Your task to perform on an android device: add a label to a message in the gmail app Image 0: 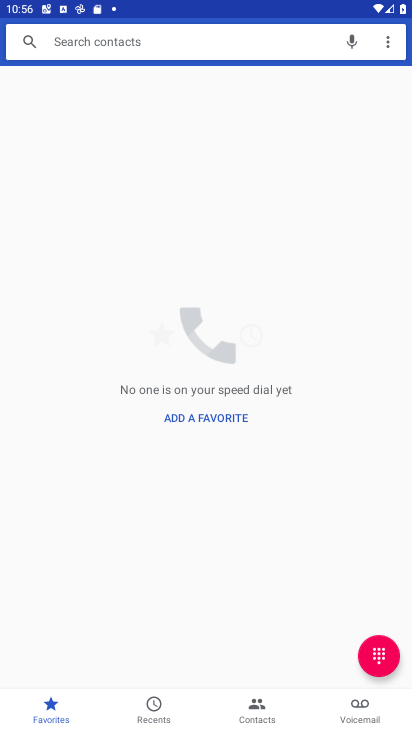
Step 0: press home button
Your task to perform on an android device: add a label to a message in the gmail app Image 1: 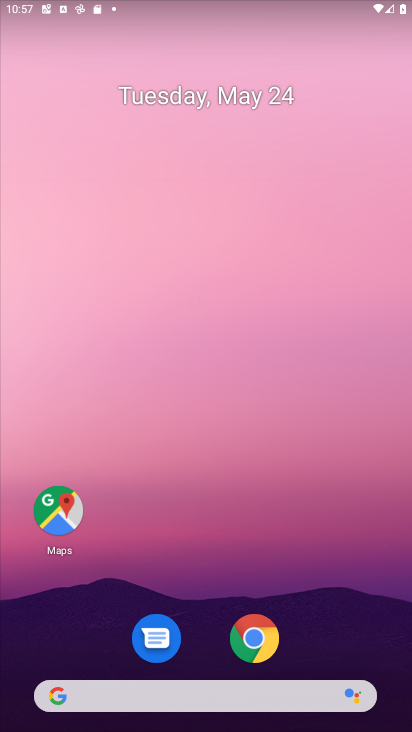
Step 1: drag from (215, 722) to (340, 73)
Your task to perform on an android device: add a label to a message in the gmail app Image 2: 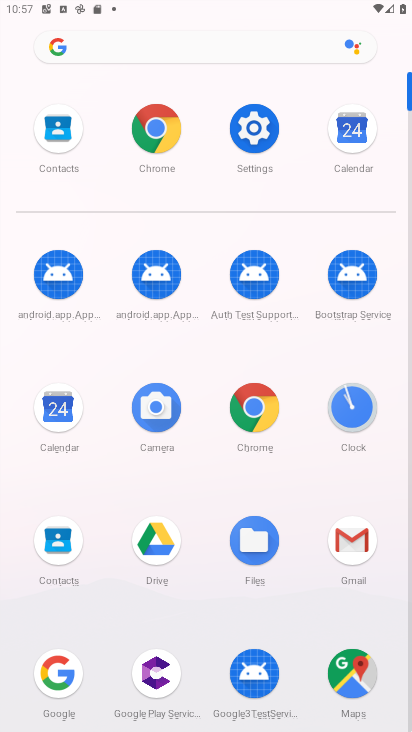
Step 2: click (358, 547)
Your task to perform on an android device: add a label to a message in the gmail app Image 3: 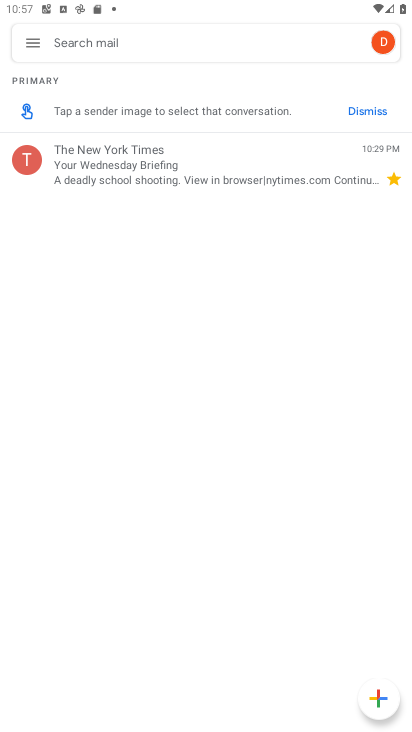
Step 3: click (165, 156)
Your task to perform on an android device: add a label to a message in the gmail app Image 4: 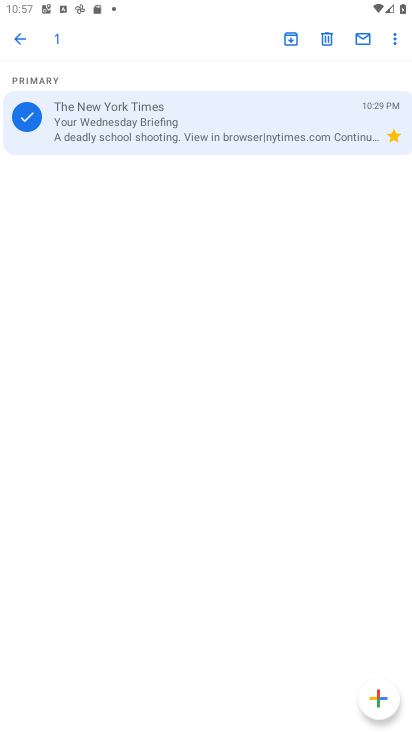
Step 4: click (396, 35)
Your task to perform on an android device: add a label to a message in the gmail app Image 5: 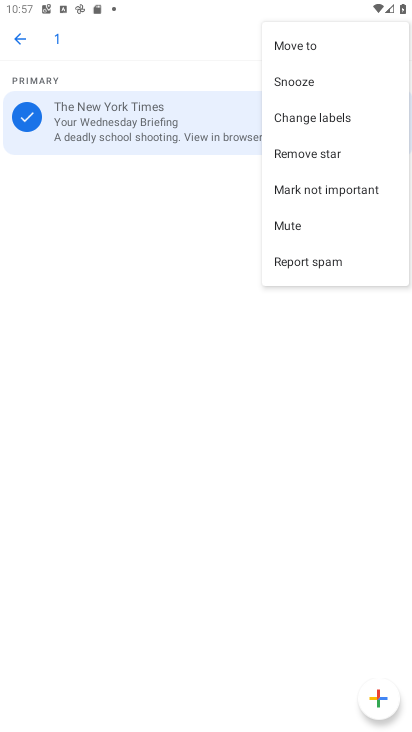
Step 5: click (327, 119)
Your task to perform on an android device: add a label to a message in the gmail app Image 6: 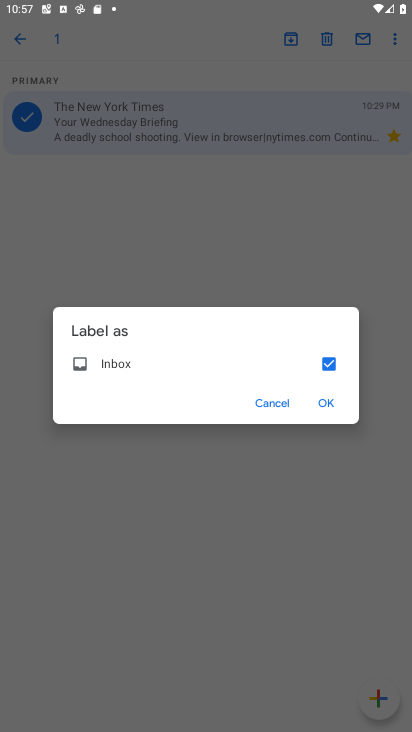
Step 6: click (332, 400)
Your task to perform on an android device: add a label to a message in the gmail app Image 7: 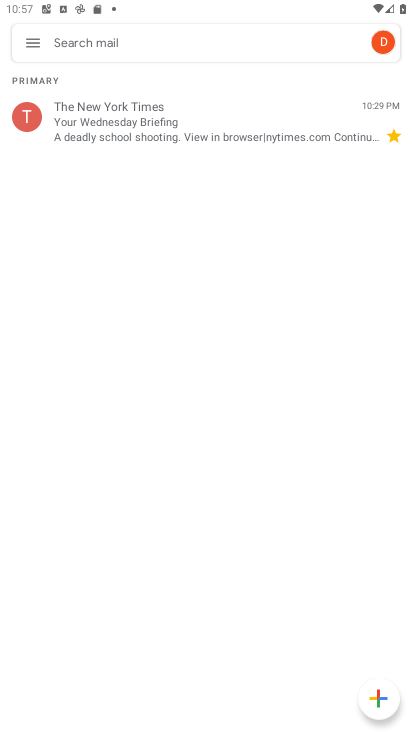
Step 7: task complete